Your task to perform on an android device: snooze an email in the gmail app Image 0: 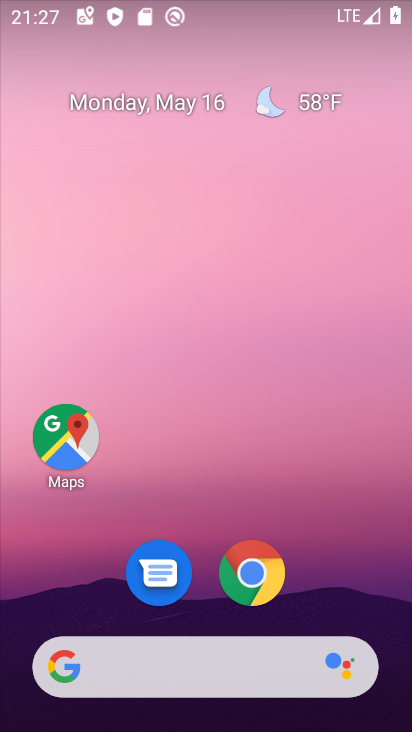
Step 0: drag from (209, 726) to (224, 213)
Your task to perform on an android device: snooze an email in the gmail app Image 1: 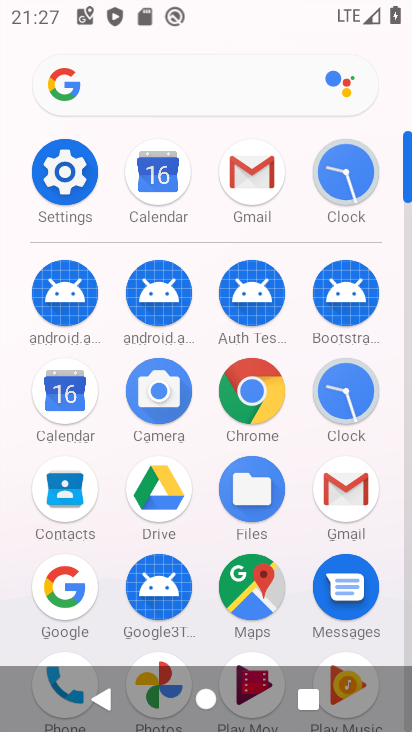
Step 1: click (340, 478)
Your task to perform on an android device: snooze an email in the gmail app Image 2: 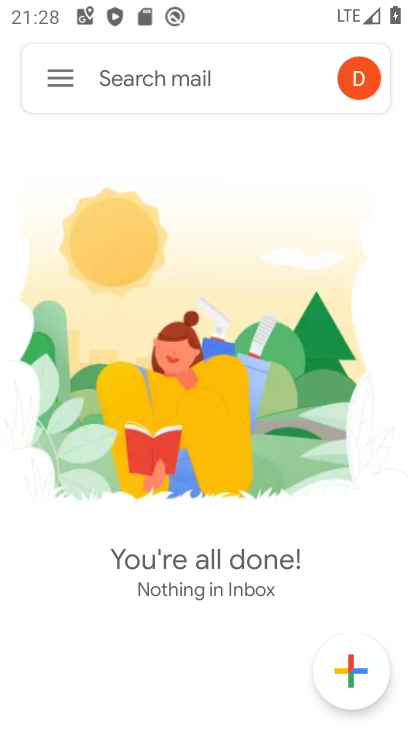
Step 2: task complete